Your task to perform on an android device: Open internet settings Image 0: 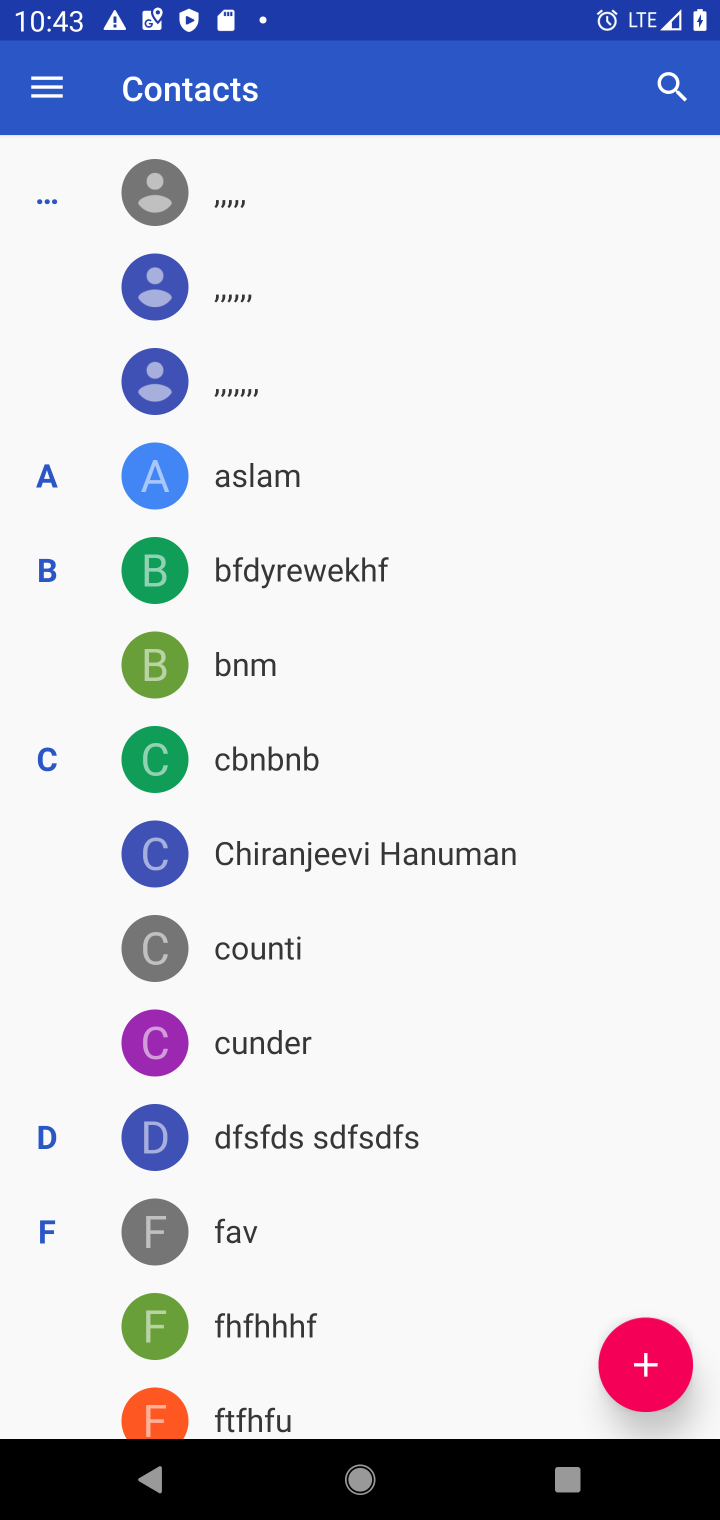
Step 0: press home button
Your task to perform on an android device: Open internet settings Image 1: 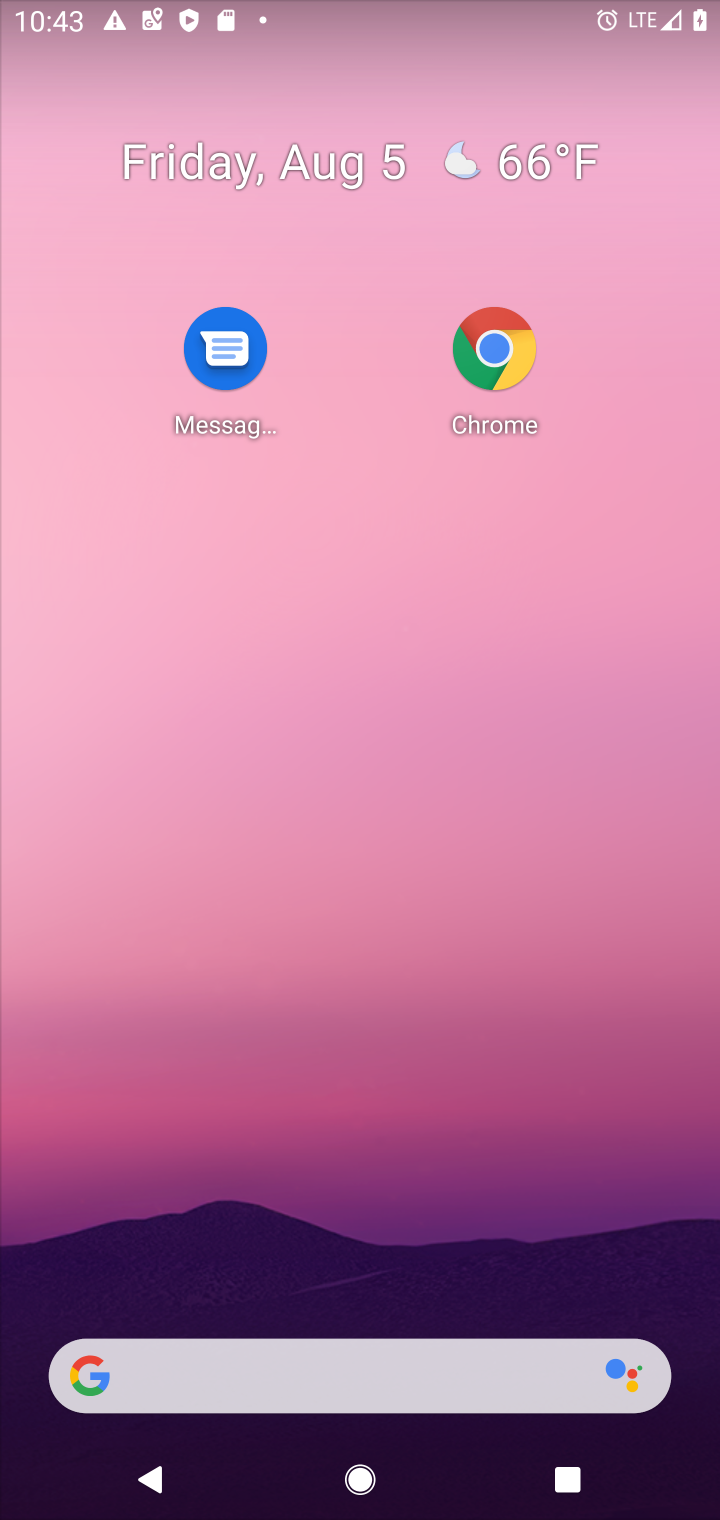
Step 1: drag from (420, 1410) to (326, 610)
Your task to perform on an android device: Open internet settings Image 2: 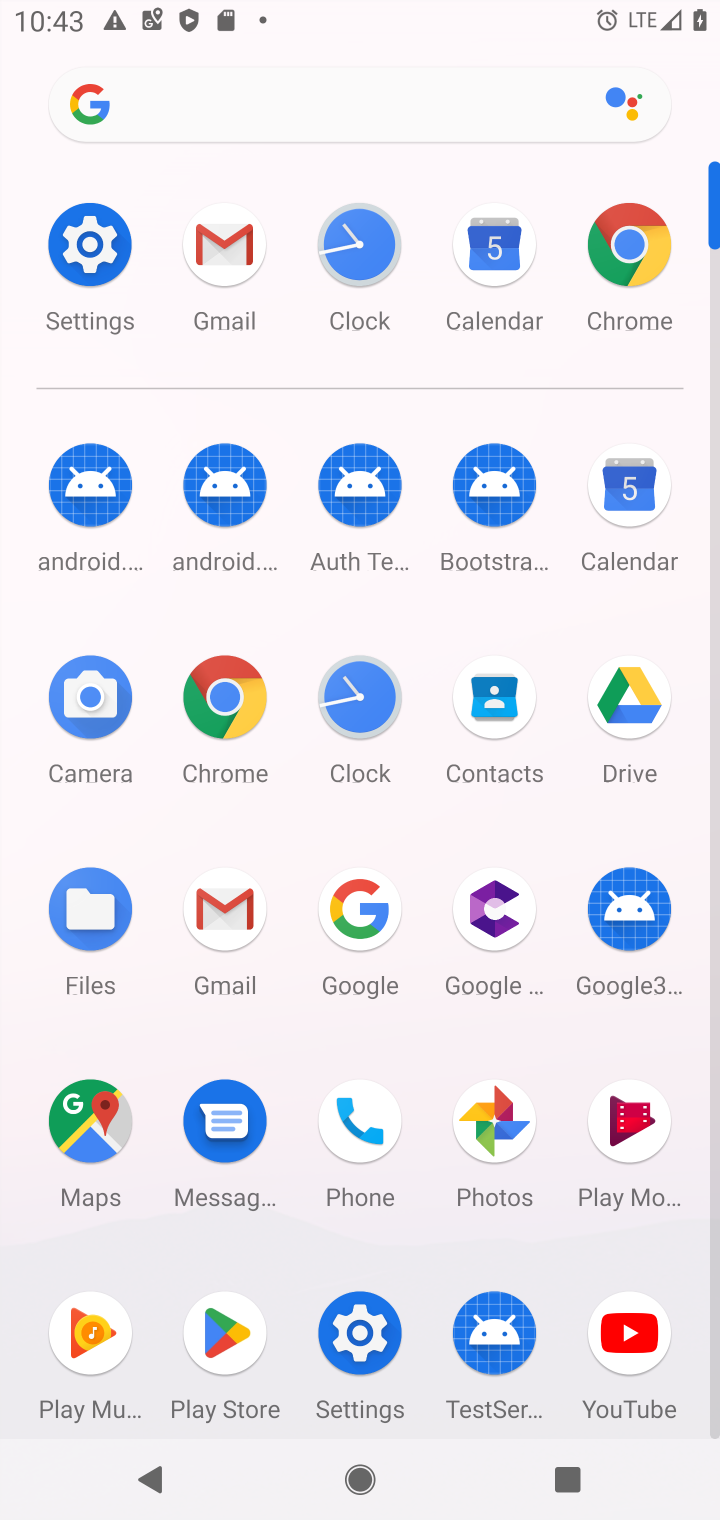
Step 2: click (72, 239)
Your task to perform on an android device: Open internet settings Image 3: 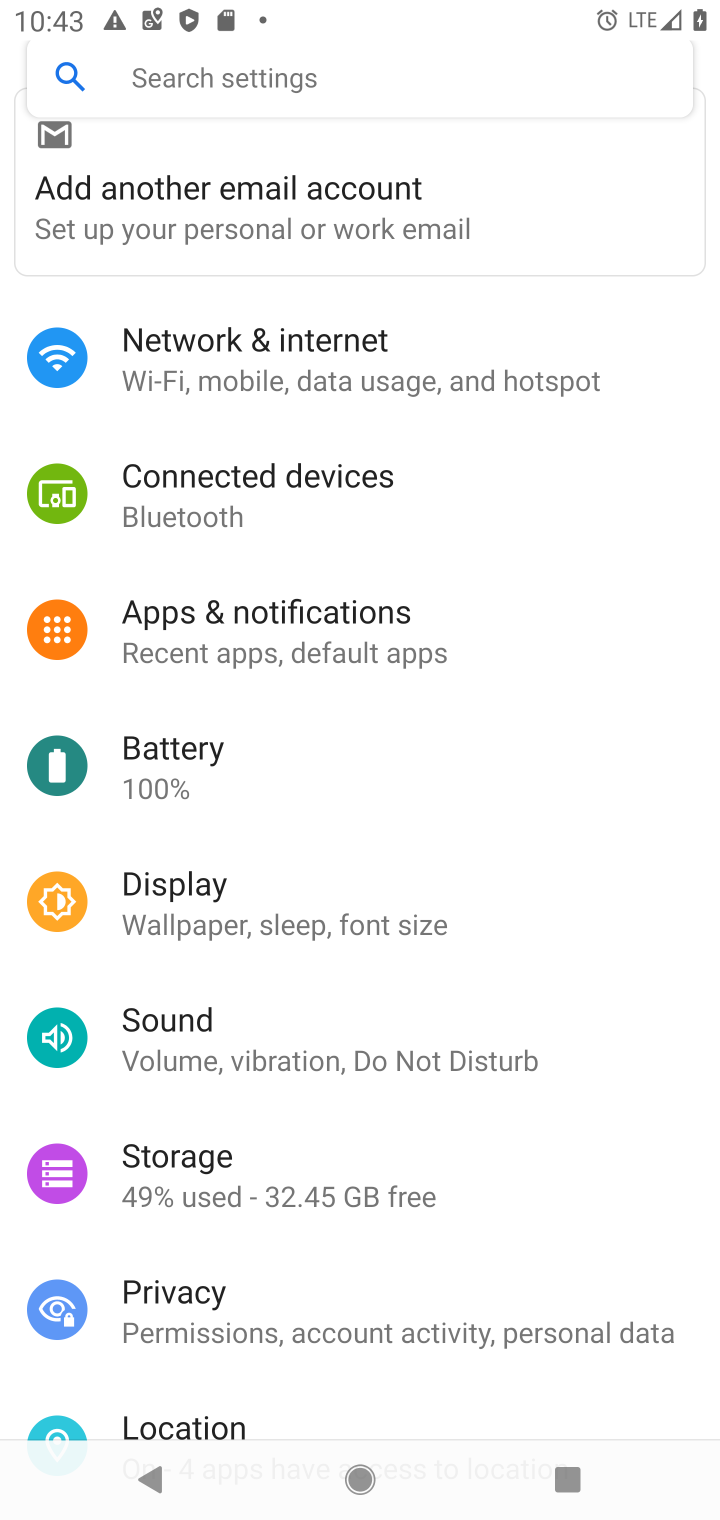
Step 3: click (287, 363)
Your task to perform on an android device: Open internet settings Image 4: 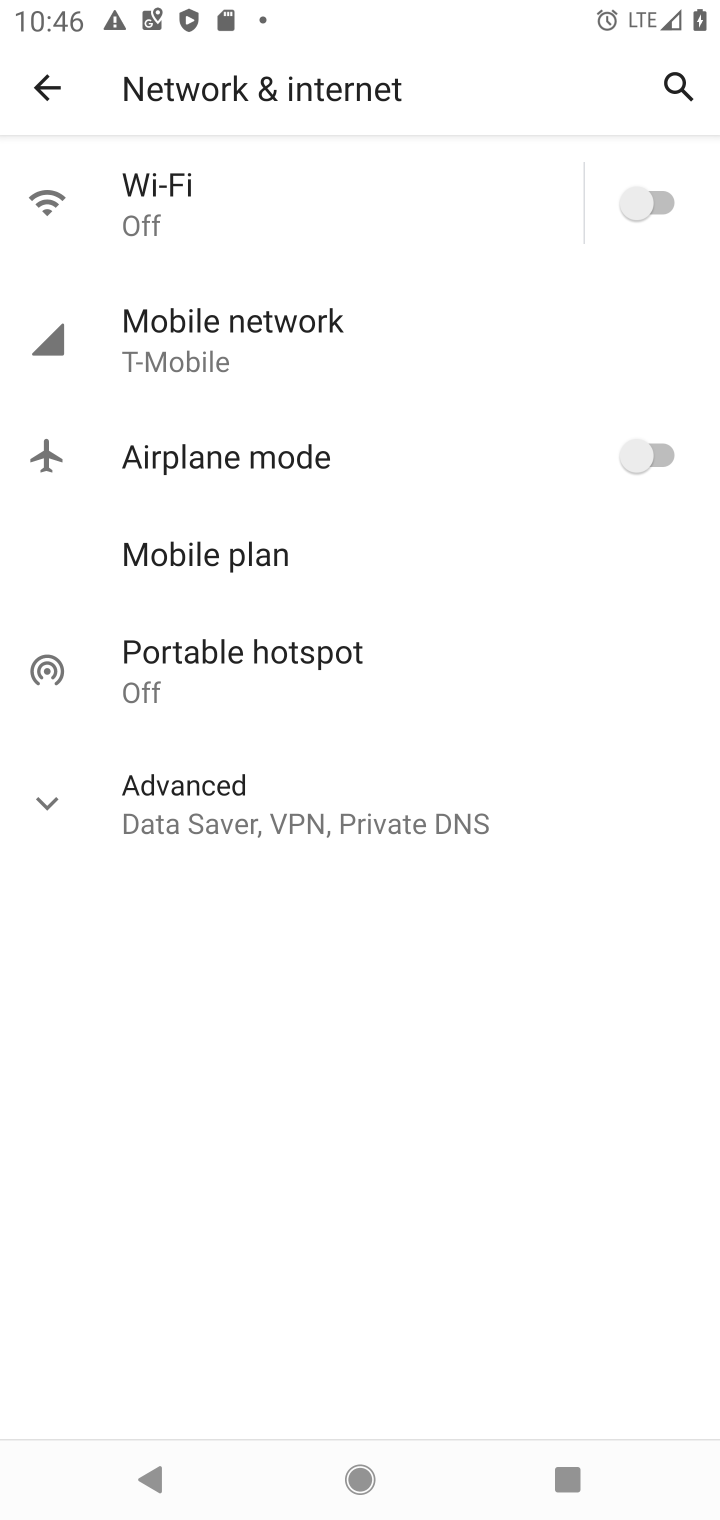
Step 4: task complete